Your task to perform on an android device: turn on sleep mode Image 0: 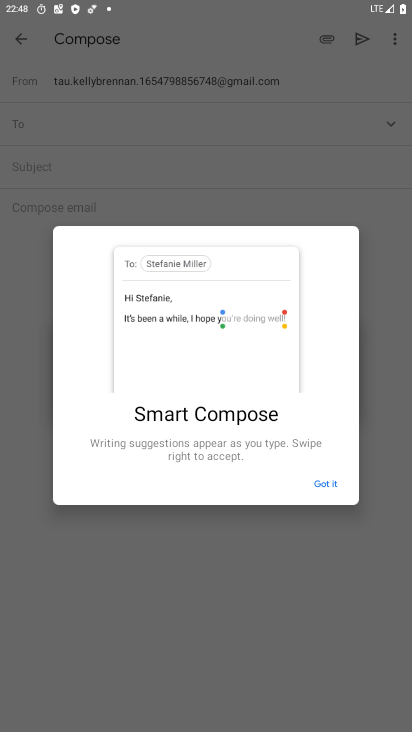
Step 0: press home button
Your task to perform on an android device: turn on sleep mode Image 1: 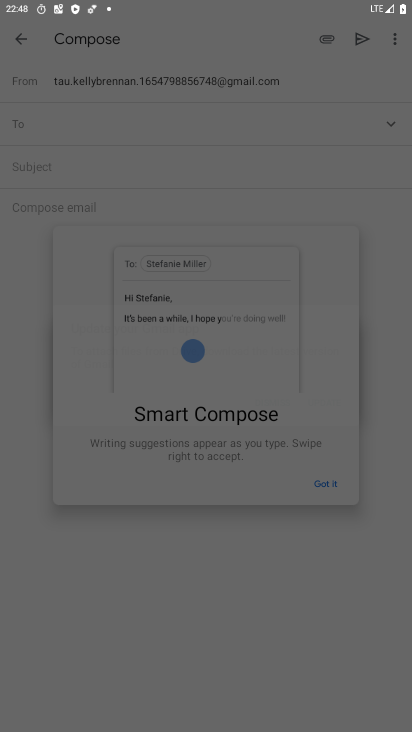
Step 1: press home button
Your task to perform on an android device: turn on sleep mode Image 2: 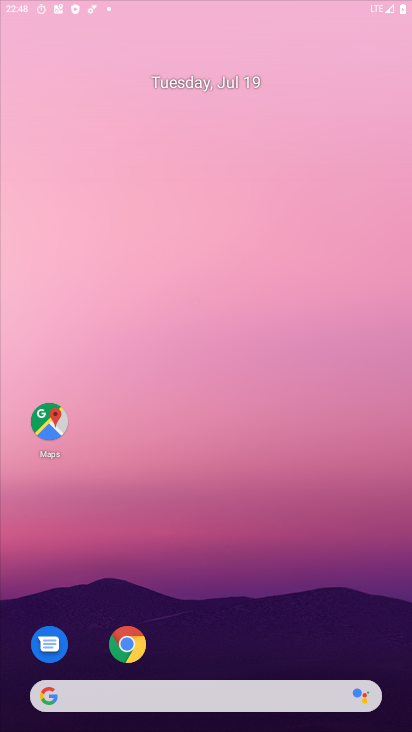
Step 2: press home button
Your task to perform on an android device: turn on sleep mode Image 3: 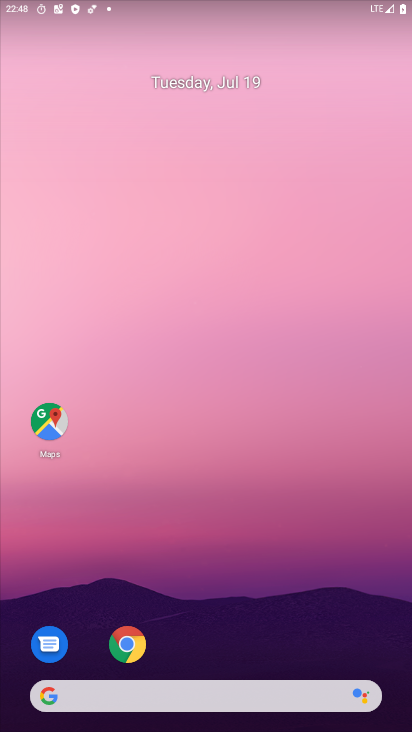
Step 3: press home button
Your task to perform on an android device: turn on sleep mode Image 4: 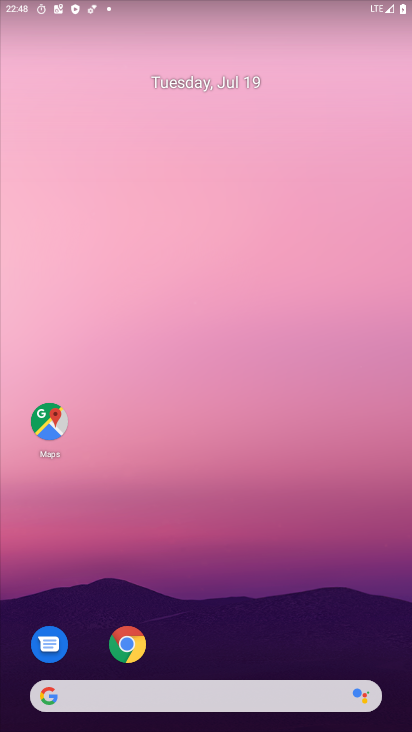
Step 4: press home button
Your task to perform on an android device: turn on sleep mode Image 5: 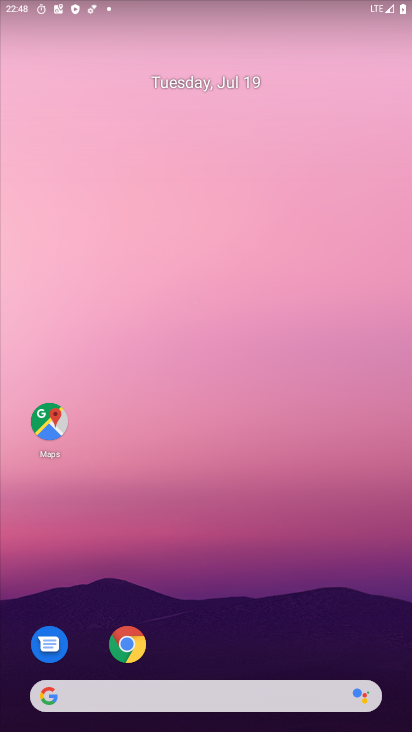
Step 5: drag from (174, 656) to (208, 31)
Your task to perform on an android device: turn on sleep mode Image 6: 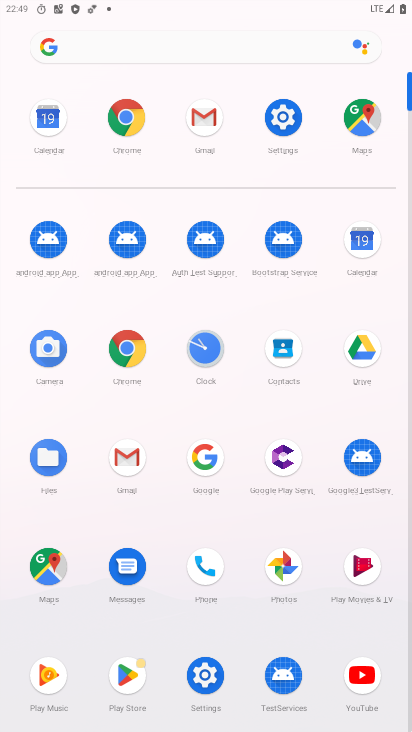
Step 6: press home button
Your task to perform on an android device: turn on sleep mode Image 7: 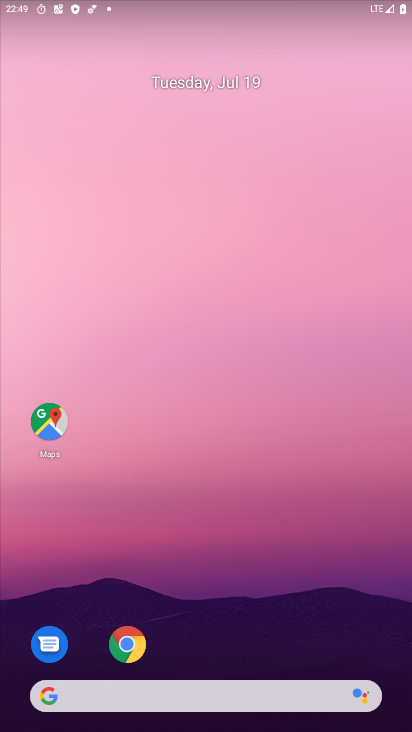
Step 7: drag from (347, 578) to (320, 78)
Your task to perform on an android device: turn on sleep mode Image 8: 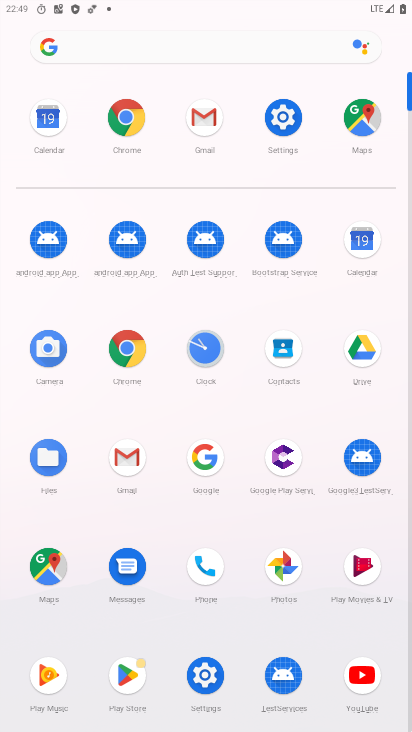
Step 8: click (212, 663)
Your task to perform on an android device: turn on sleep mode Image 9: 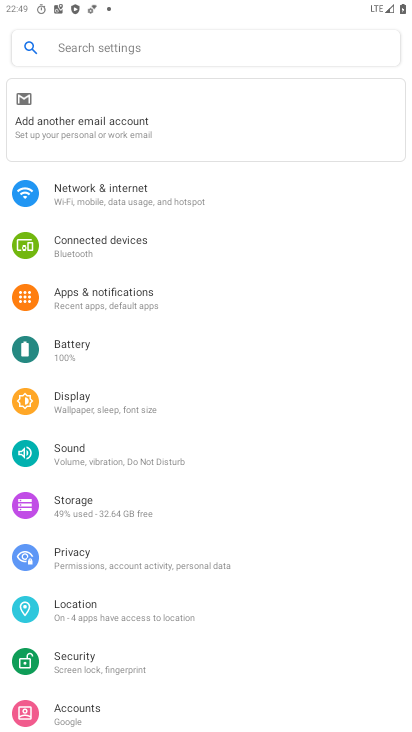
Step 9: click (82, 384)
Your task to perform on an android device: turn on sleep mode Image 10: 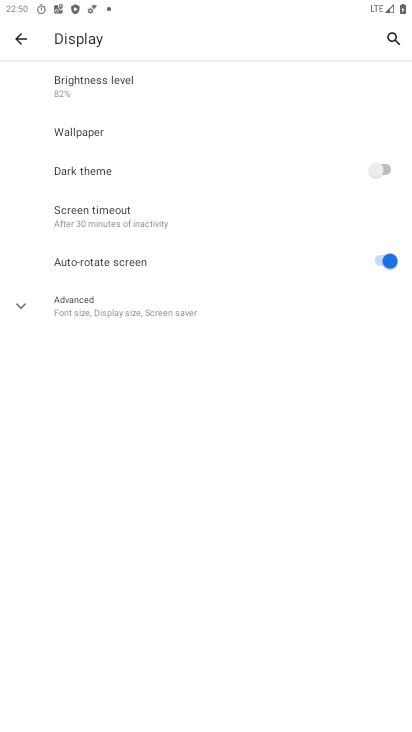
Step 10: task complete